Your task to perform on an android device: open a bookmark in the chrome app Image 0: 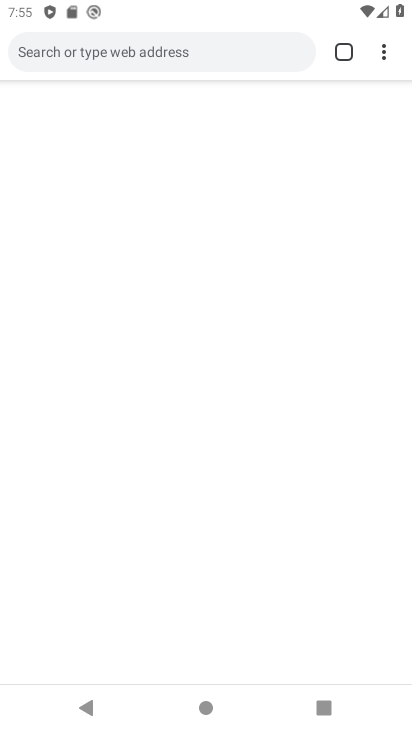
Step 0: click (195, 462)
Your task to perform on an android device: open a bookmark in the chrome app Image 1: 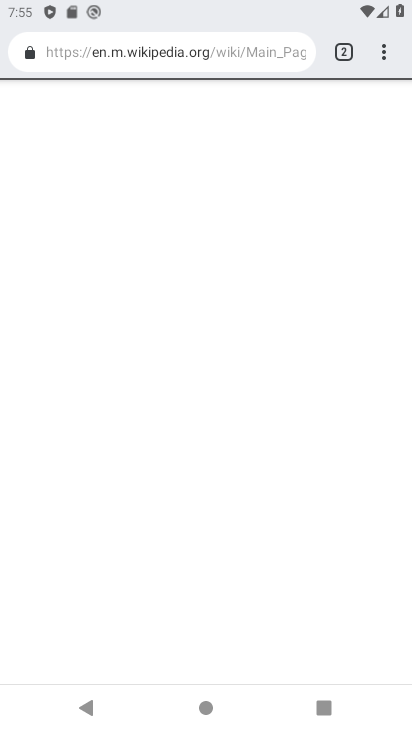
Step 1: press home button
Your task to perform on an android device: open a bookmark in the chrome app Image 2: 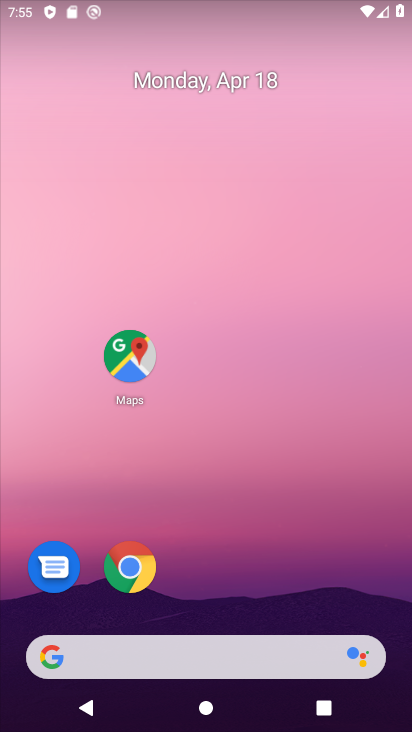
Step 2: drag from (242, 679) to (407, 95)
Your task to perform on an android device: open a bookmark in the chrome app Image 3: 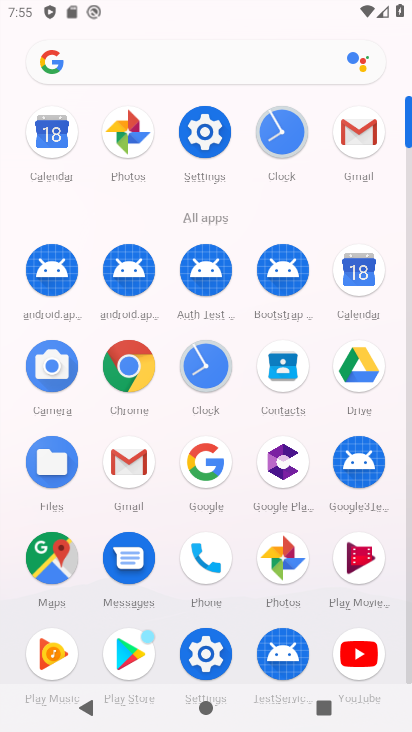
Step 3: click (132, 385)
Your task to perform on an android device: open a bookmark in the chrome app Image 4: 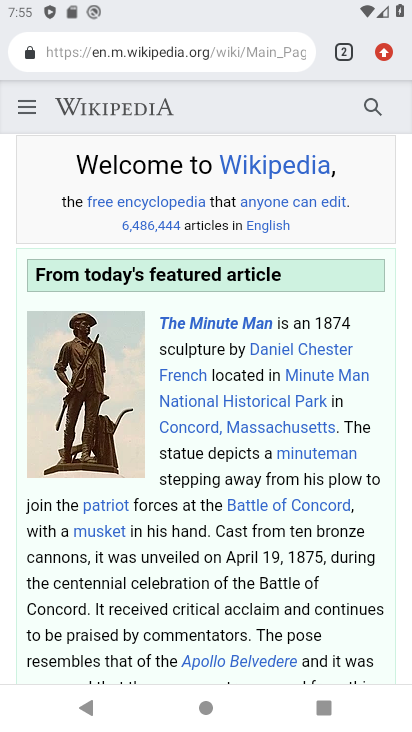
Step 4: click (388, 52)
Your task to perform on an android device: open a bookmark in the chrome app Image 5: 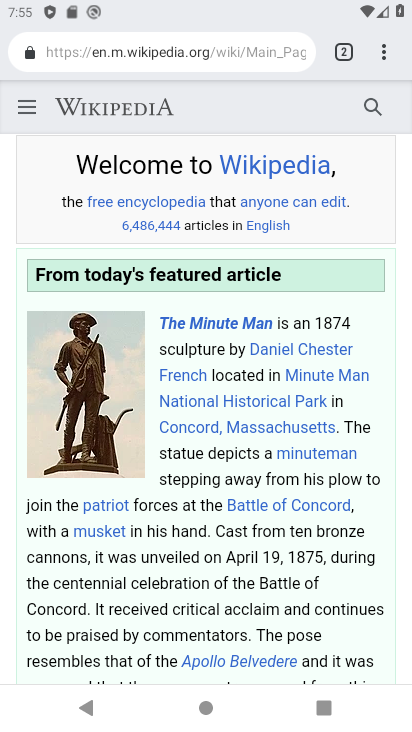
Step 5: click (382, 52)
Your task to perform on an android device: open a bookmark in the chrome app Image 6: 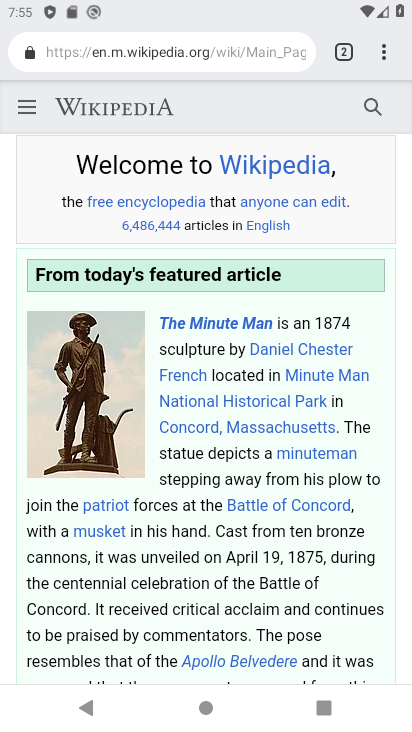
Step 6: click (382, 54)
Your task to perform on an android device: open a bookmark in the chrome app Image 7: 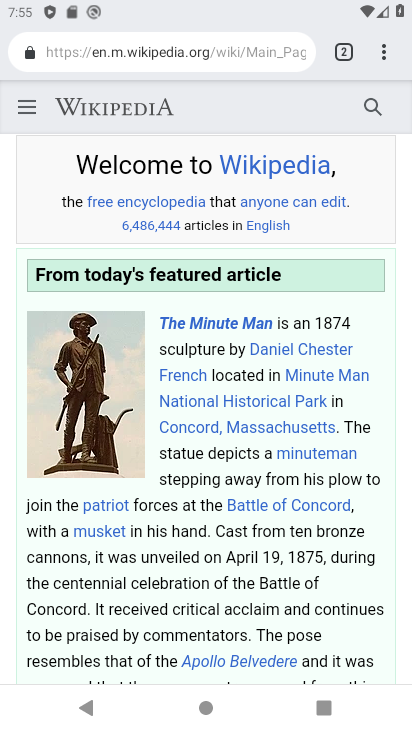
Step 7: click (380, 65)
Your task to perform on an android device: open a bookmark in the chrome app Image 8: 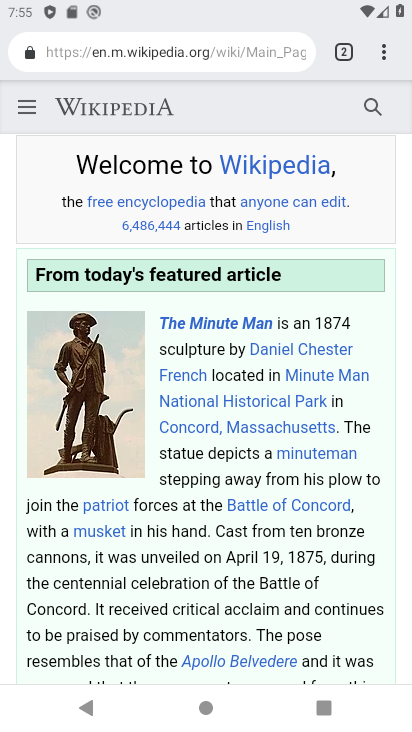
Step 8: click (385, 54)
Your task to perform on an android device: open a bookmark in the chrome app Image 9: 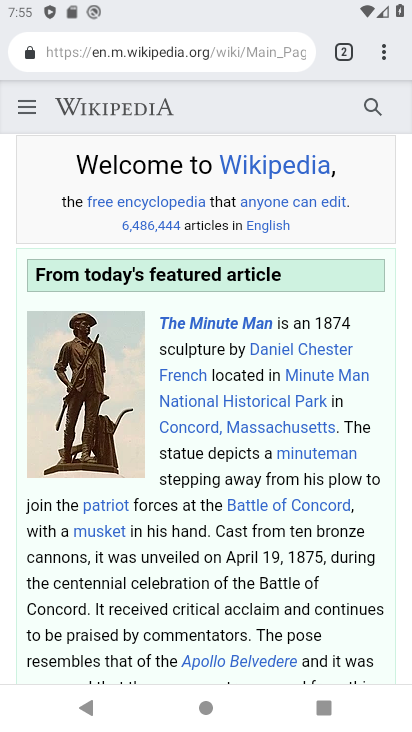
Step 9: click (385, 54)
Your task to perform on an android device: open a bookmark in the chrome app Image 10: 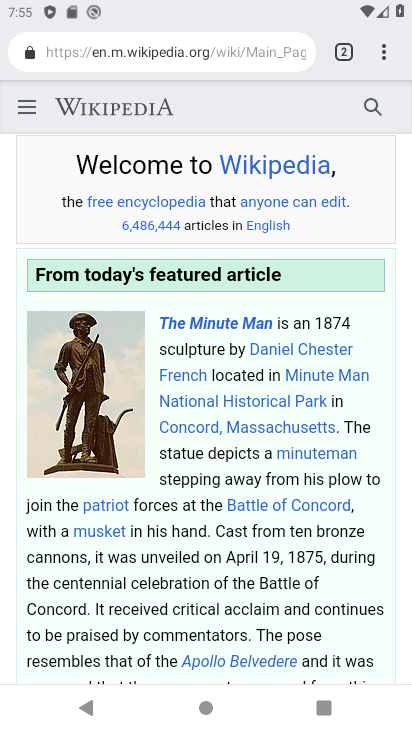
Step 10: click (385, 54)
Your task to perform on an android device: open a bookmark in the chrome app Image 11: 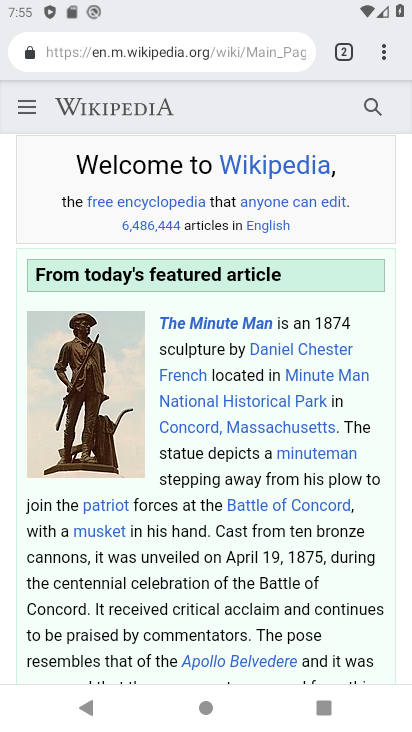
Step 11: click (387, 54)
Your task to perform on an android device: open a bookmark in the chrome app Image 12: 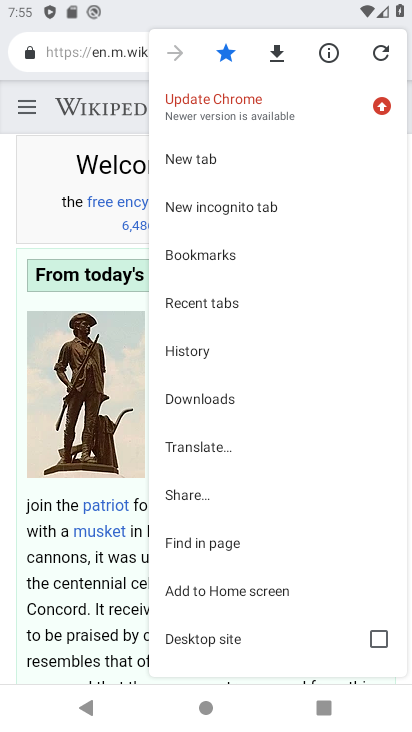
Step 12: click (219, 246)
Your task to perform on an android device: open a bookmark in the chrome app Image 13: 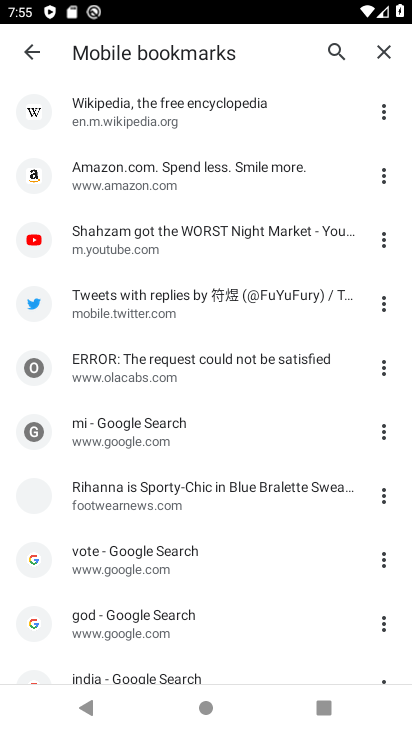
Step 13: drag from (219, 246) to (225, 89)
Your task to perform on an android device: open a bookmark in the chrome app Image 14: 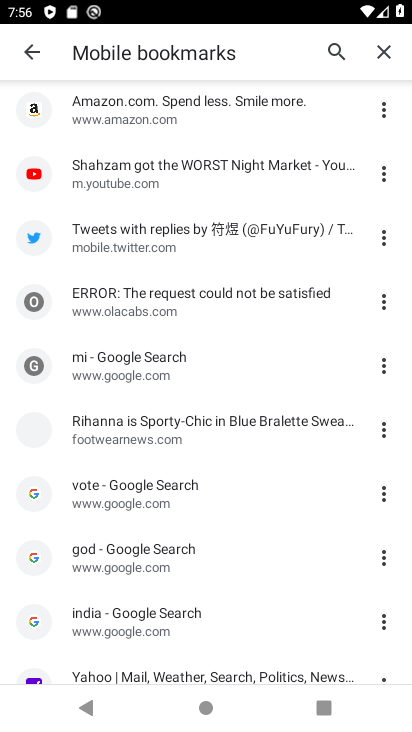
Step 14: click (133, 614)
Your task to perform on an android device: open a bookmark in the chrome app Image 15: 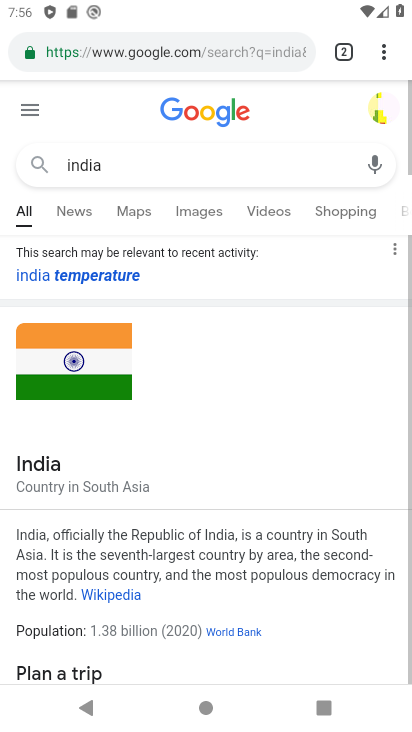
Step 15: task complete